Your task to perform on an android device: Empty the shopping cart on costco. Add "macbook" to the cart on costco, then select checkout. Image 0: 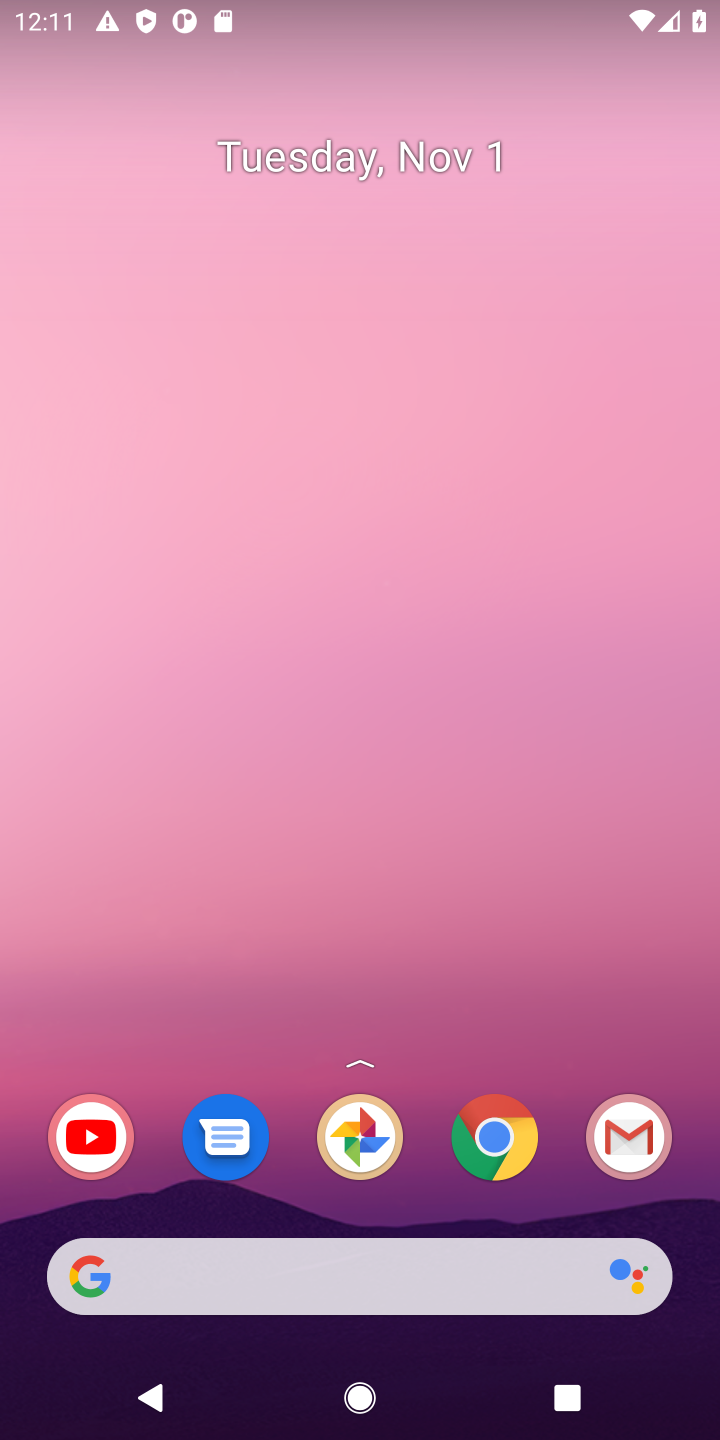
Step 0: click (496, 1138)
Your task to perform on an android device: Empty the shopping cart on costco. Add "macbook" to the cart on costco, then select checkout. Image 1: 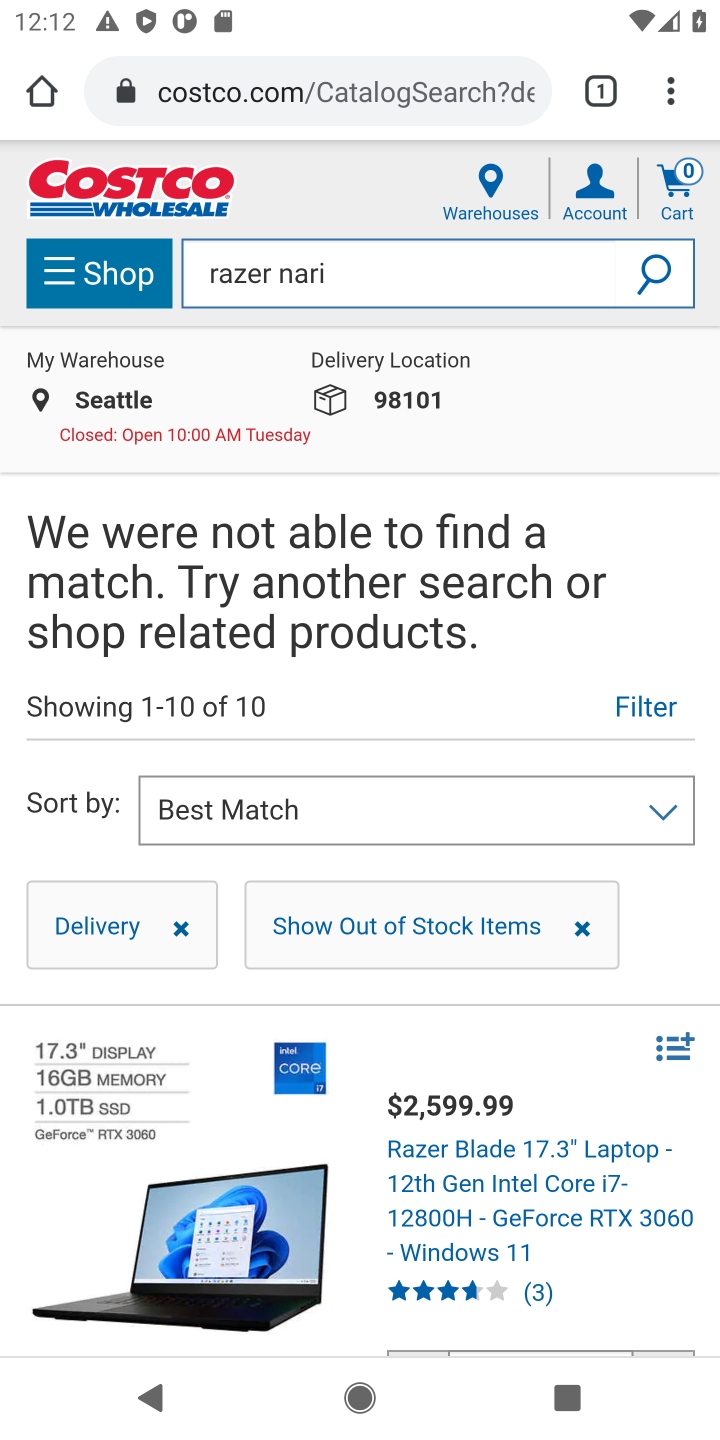
Step 1: click (409, 91)
Your task to perform on an android device: Empty the shopping cart on costco. Add "macbook" to the cart on costco, then select checkout. Image 2: 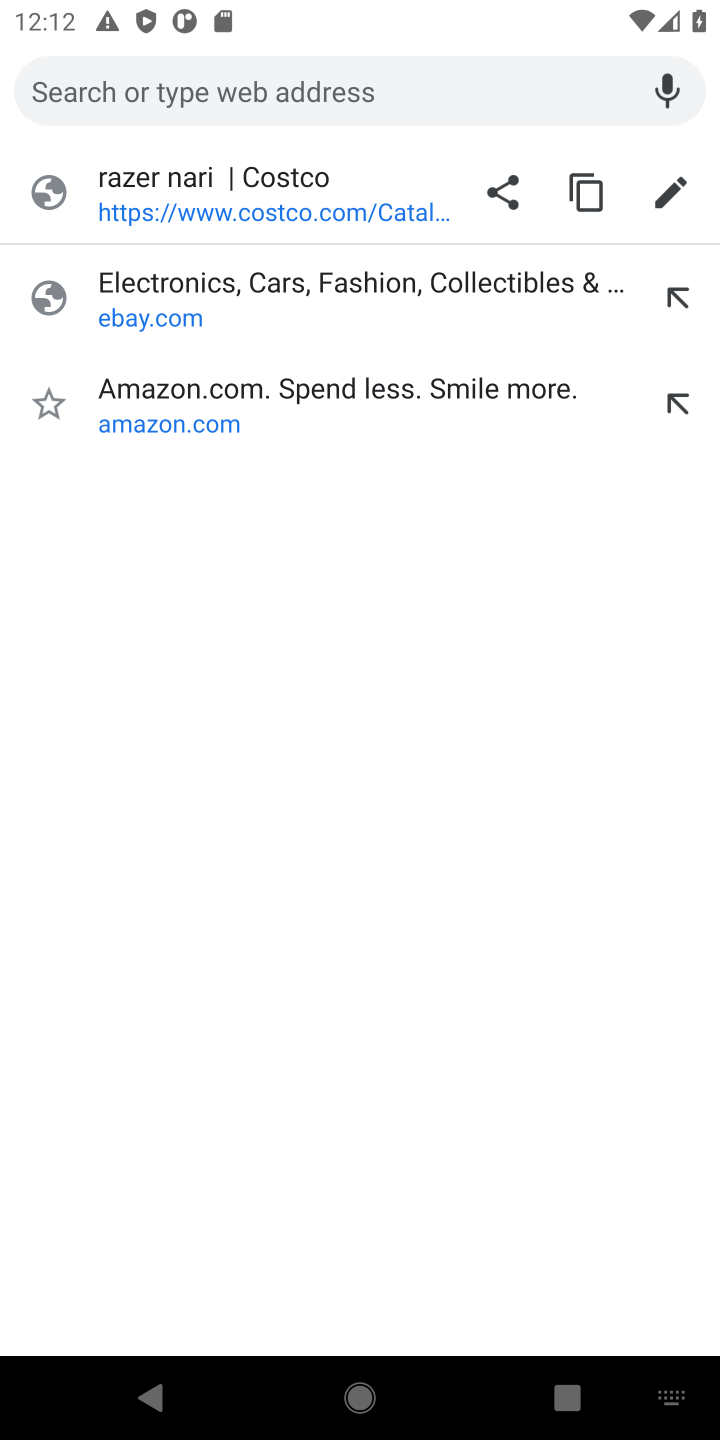
Step 2: type "costco"
Your task to perform on an android device: Empty the shopping cart on costco. Add "macbook" to the cart on costco, then select checkout. Image 3: 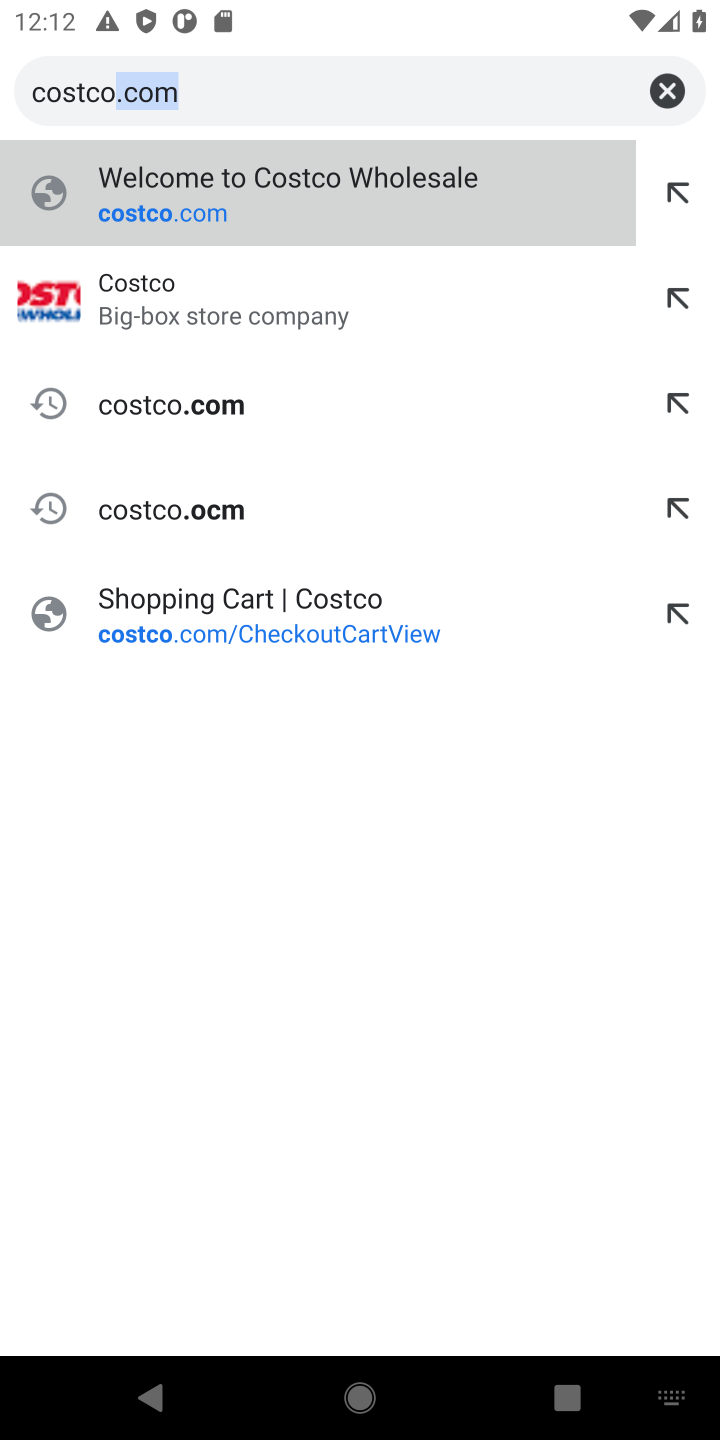
Step 3: click (158, 314)
Your task to perform on an android device: Empty the shopping cart on costco. Add "macbook" to the cart on costco, then select checkout. Image 4: 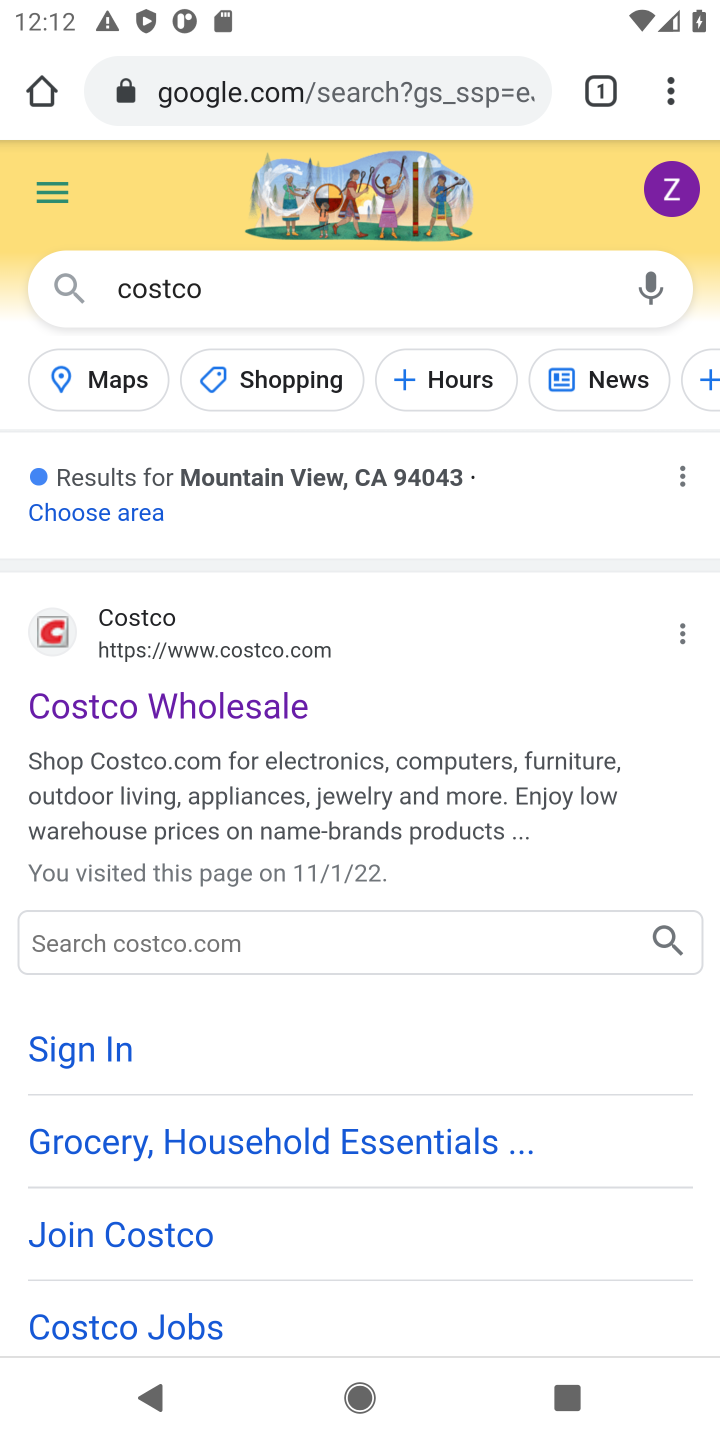
Step 4: click (175, 678)
Your task to perform on an android device: Empty the shopping cart on costco. Add "macbook" to the cart on costco, then select checkout. Image 5: 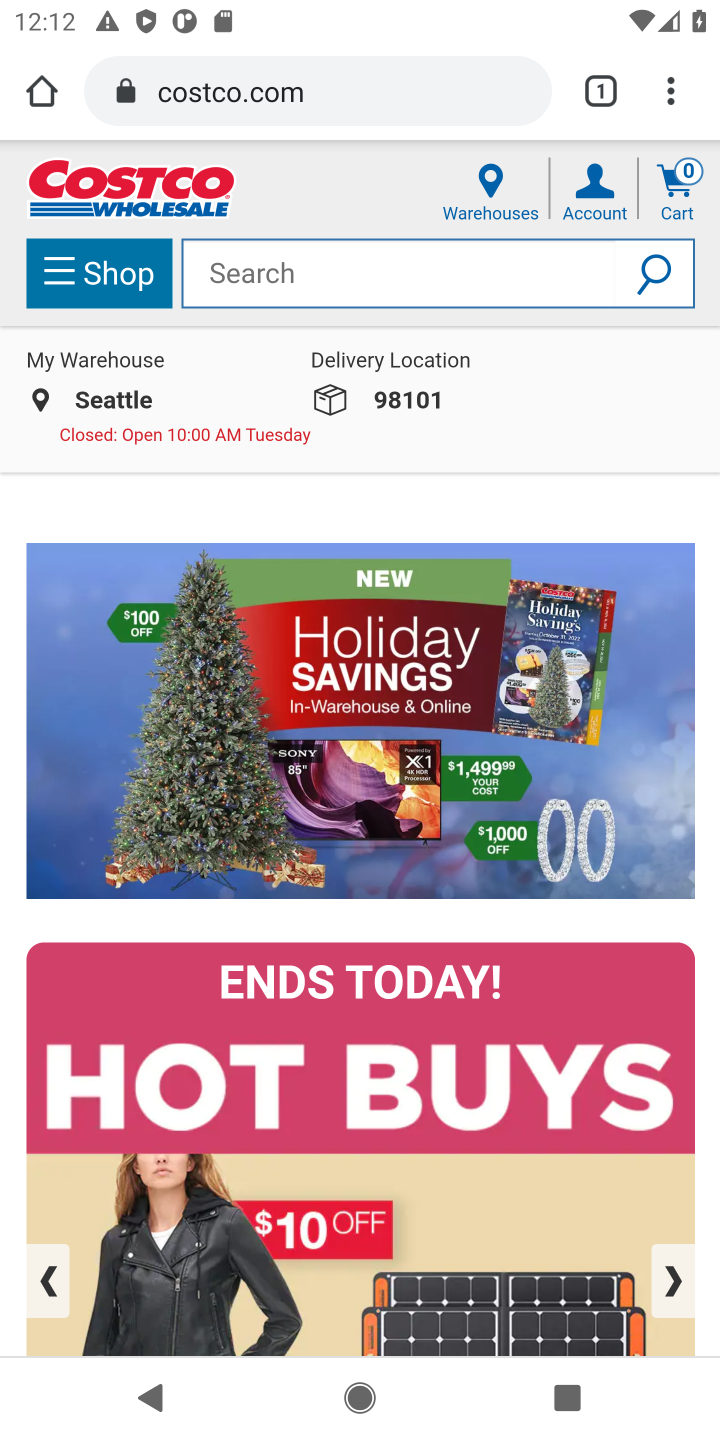
Step 5: click (677, 187)
Your task to perform on an android device: Empty the shopping cart on costco. Add "macbook" to the cart on costco, then select checkout. Image 6: 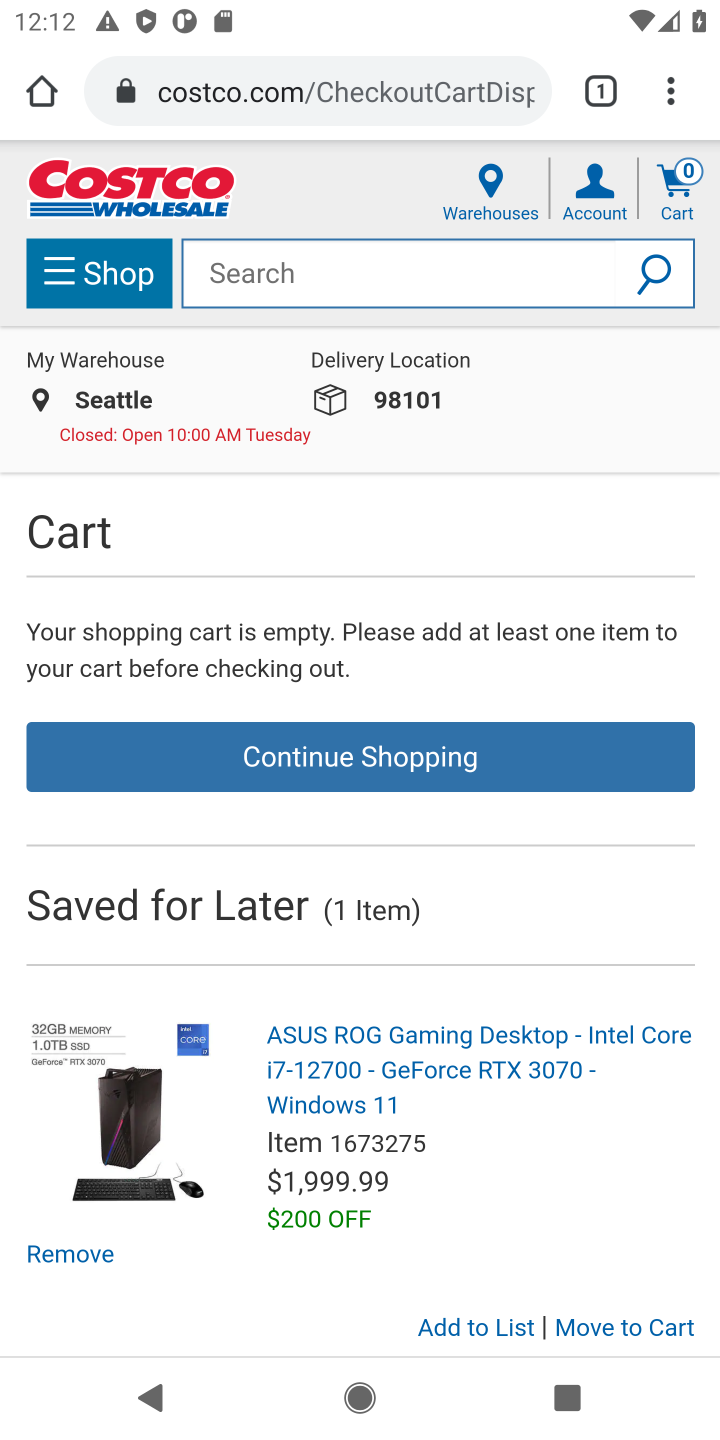
Step 6: click (339, 276)
Your task to perform on an android device: Empty the shopping cart on costco. Add "macbook" to the cart on costco, then select checkout. Image 7: 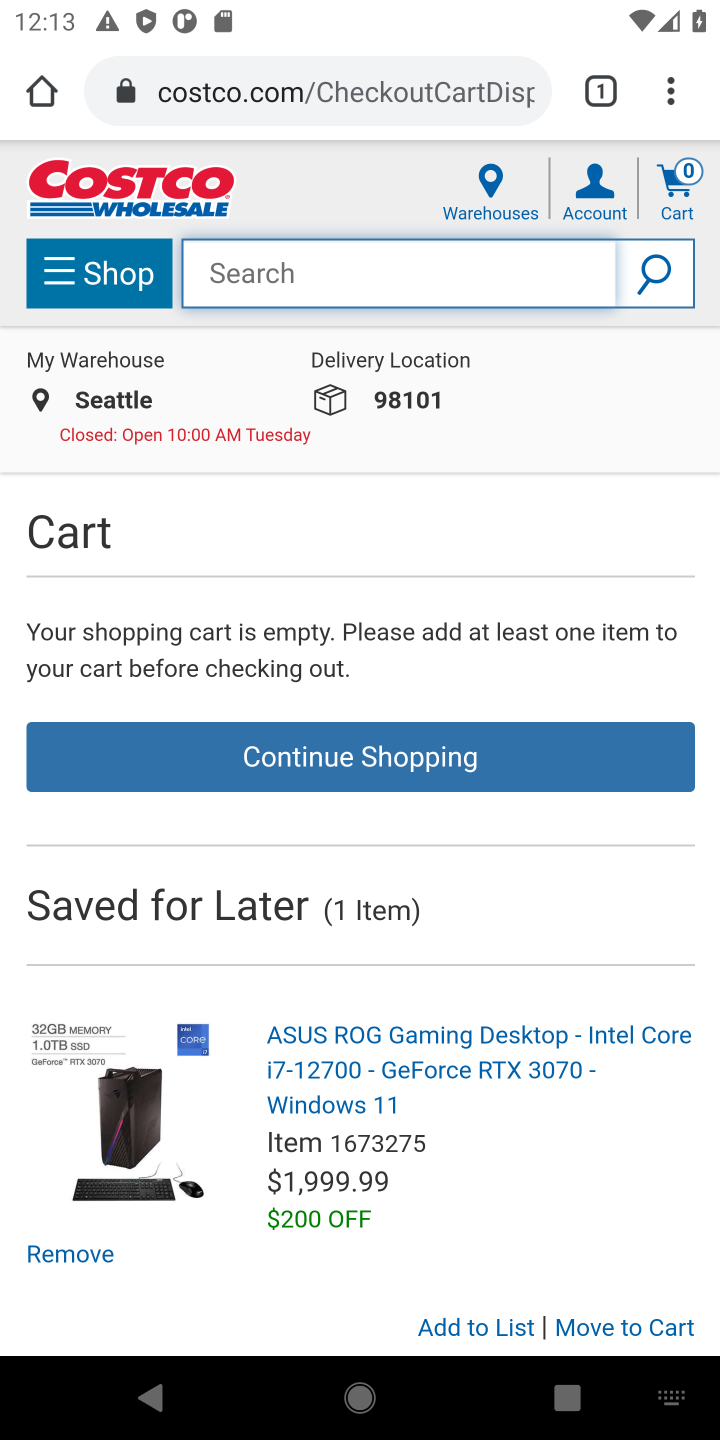
Step 7: type "macbook"
Your task to perform on an android device: Empty the shopping cart on costco. Add "macbook" to the cart on costco, then select checkout. Image 8: 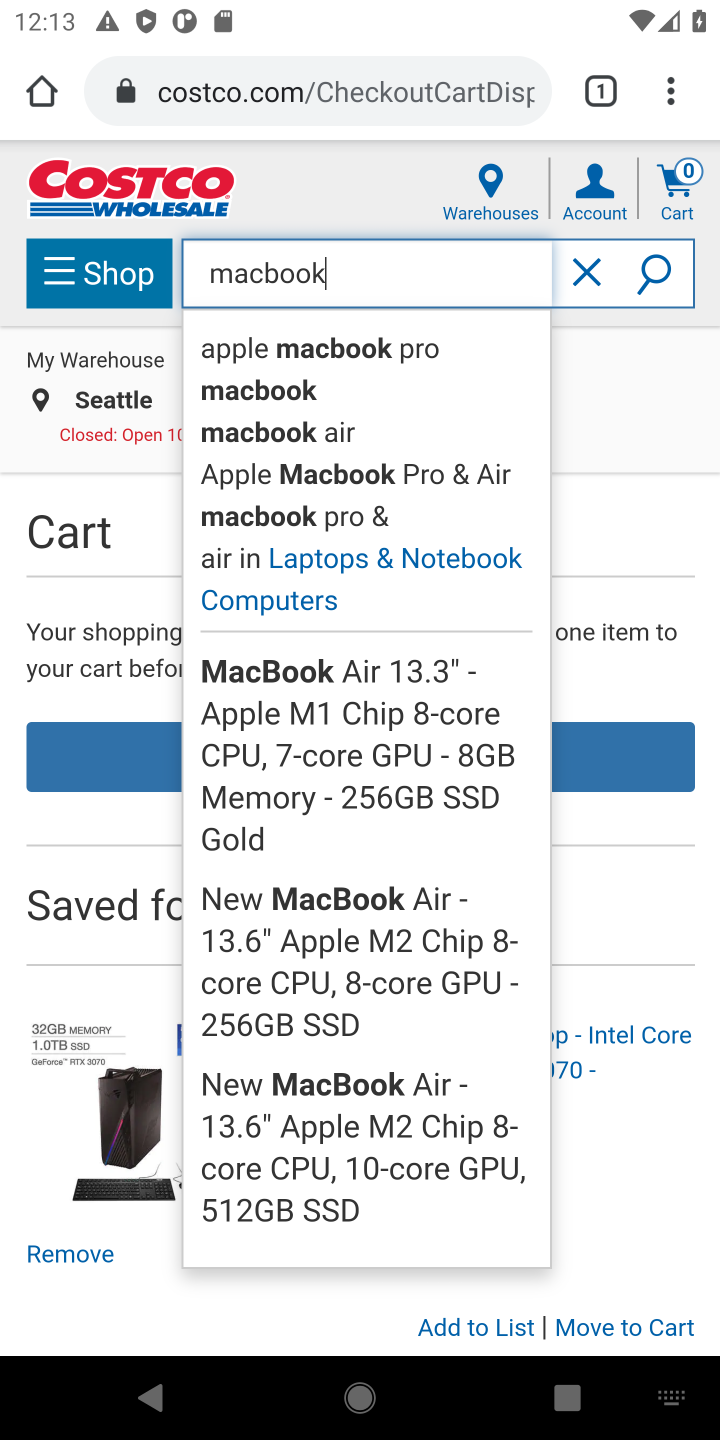
Step 8: click (653, 269)
Your task to perform on an android device: Empty the shopping cart on costco. Add "macbook" to the cart on costco, then select checkout. Image 9: 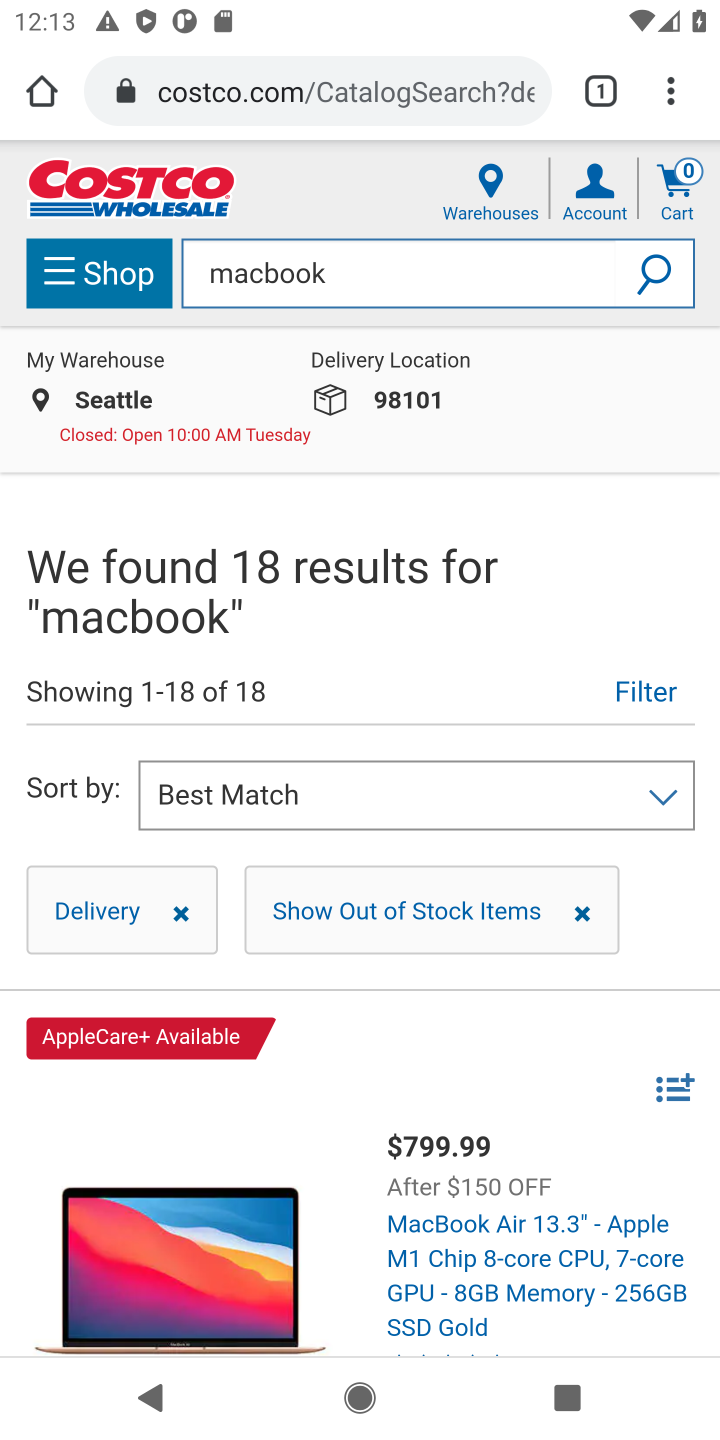
Step 9: task complete